Your task to perform on an android device: Open Youtube and go to "Your channel" Image 0: 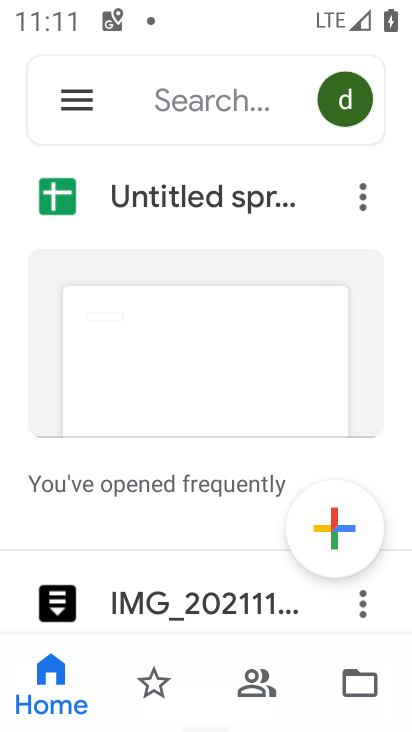
Step 0: press home button
Your task to perform on an android device: Open Youtube and go to "Your channel" Image 1: 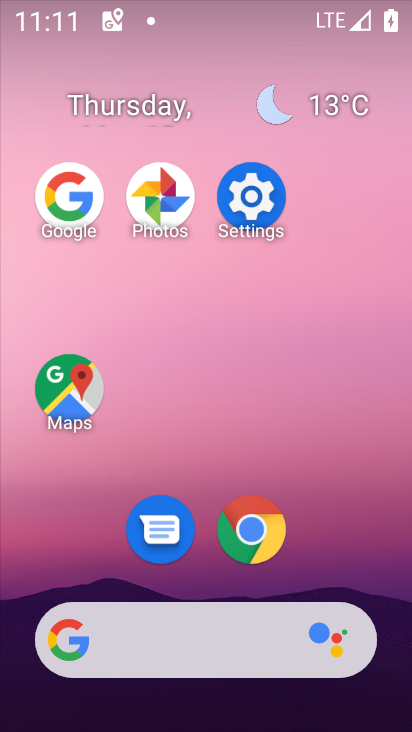
Step 1: drag from (291, 588) to (310, 67)
Your task to perform on an android device: Open Youtube and go to "Your channel" Image 2: 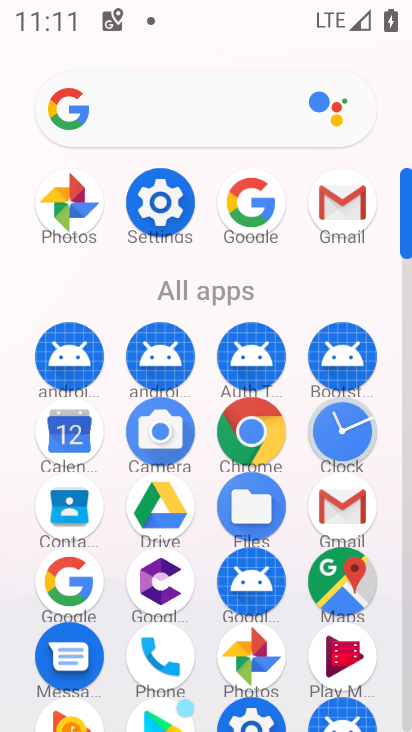
Step 2: click (211, 687)
Your task to perform on an android device: Open Youtube and go to "Your channel" Image 3: 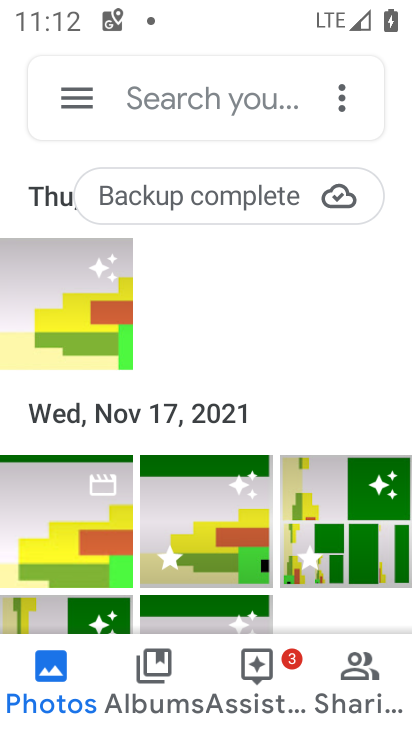
Step 3: press back button
Your task to perform on an android device: Open Youtube and go to "Your channel" Image 4: 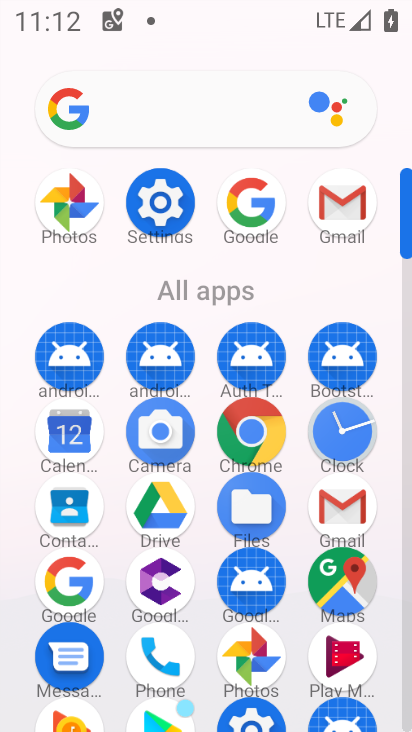
Step 4: drag from (247, 516) to (323, 83)
Your task to perform on an android device: Open Youtube and go to "Your channel" Image 5: 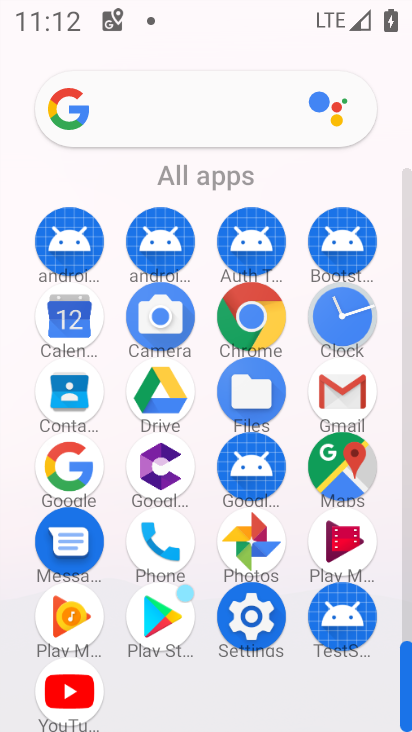
Step 5: click (79, 693)
Your task to perform on an android device: Open Youtube and go to "Your channel" Image 6: 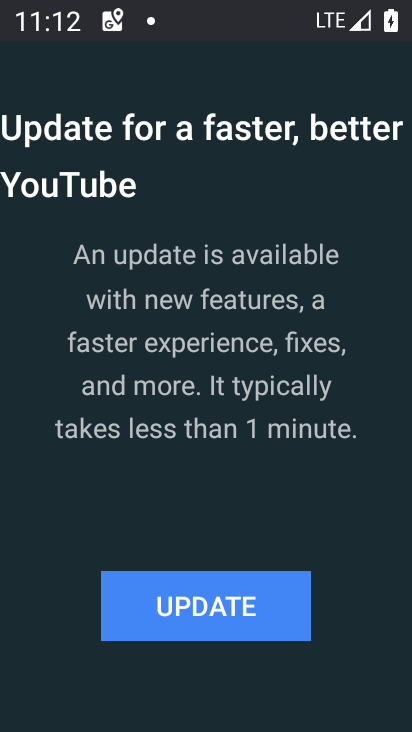
Step 6: click (231, 600)
Your task to perform on an android device: Open Youtube and go to "Your channel" Image 7: 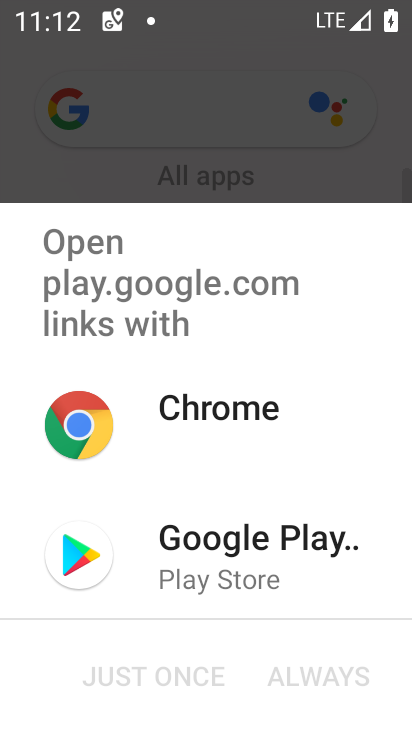
Step 7: click (244, 502)
Your task to perform on an android device: Open Youtube and go to "Your channel" Image 8: 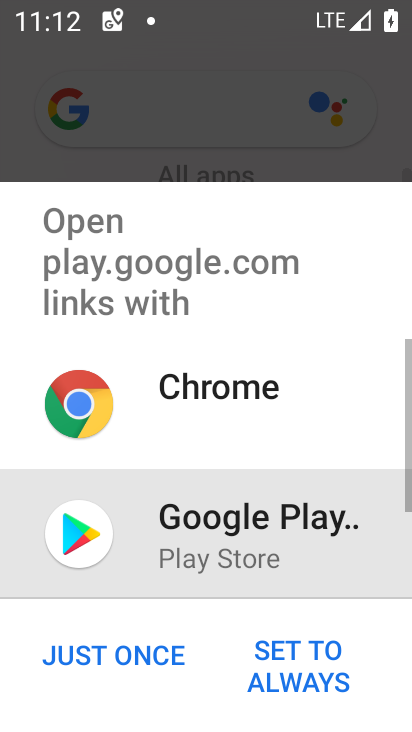
Step 8: click (245, 509)
Your task to perform on an android device: Open Youtube and go to "Your channel" Image 9: 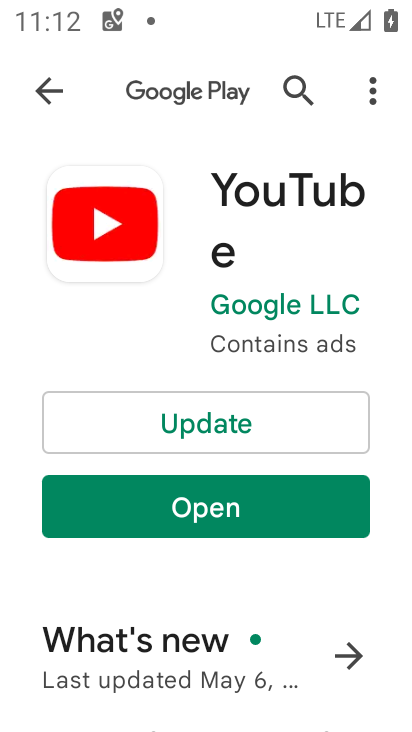
Step 9: click (274, 428)
Your task to perform on an android device: Open Youtube and go to "Your channel" Image 10: 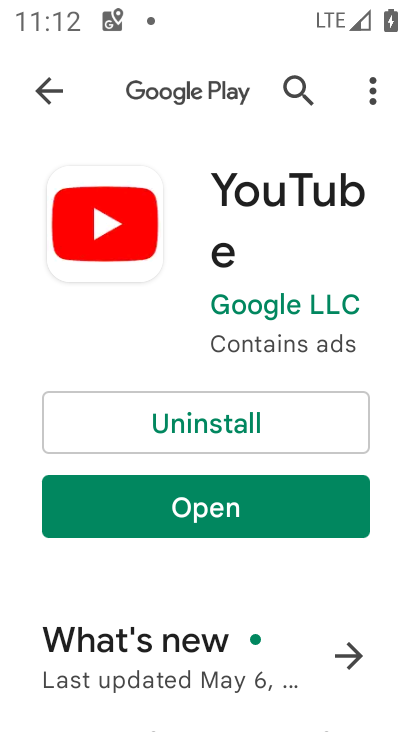
Step 10: click (167, 498)
Your task to perform on an android device: Open Youtube and go to "Your channel" Image 11: 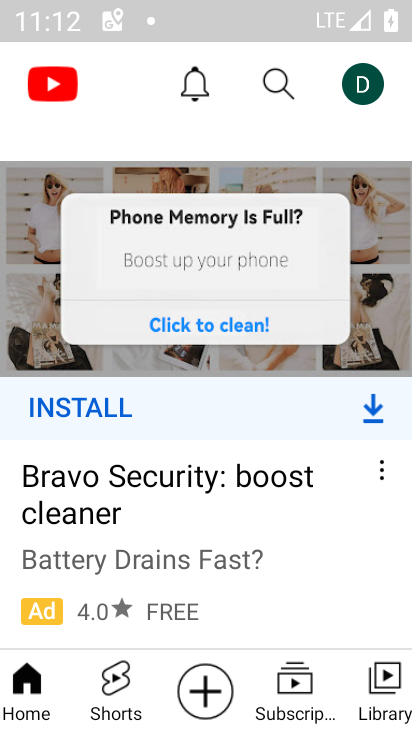
Step 11: click (376, 86)
Your task to perform on an android device: Open Youtube and go to "Your channel" Image 12: 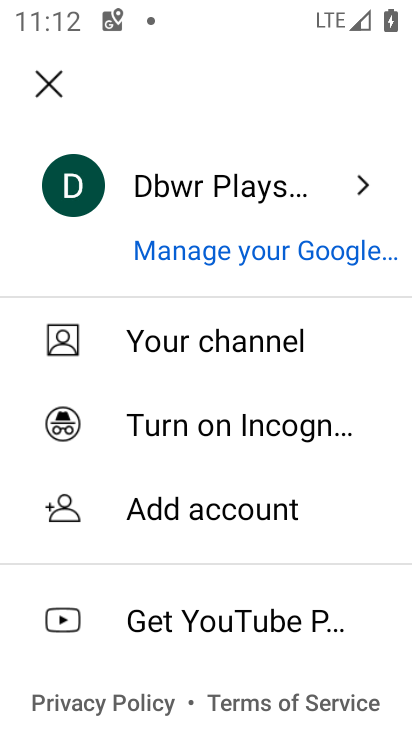
Step 12: click (230, 326)
Your task to perform on an android device: Open Youtube and go to "Your channel" Image 13: 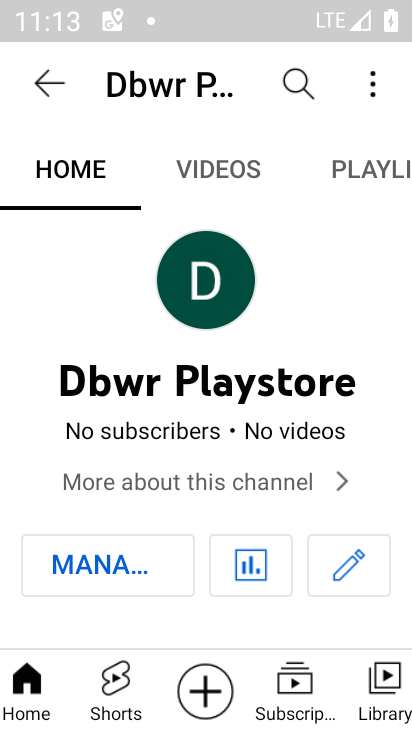
Step 13: task complete